Your task to perform on an android device: toggle sleep mode Image 0: 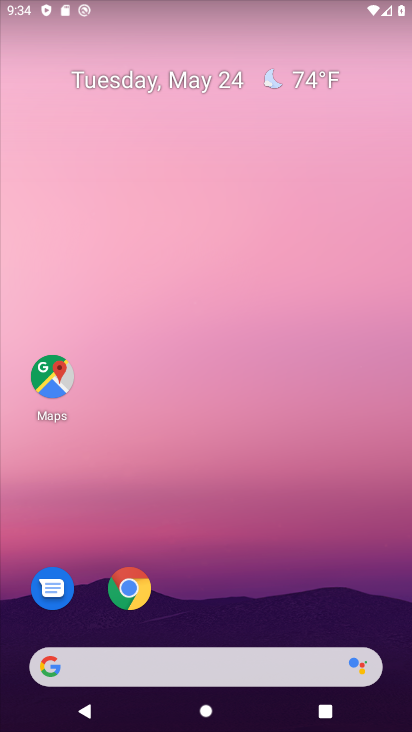
Step 0: drag from (246, 620) to (378, 102)
Your task to perform on an android device: toggle sleep mode Image 1: 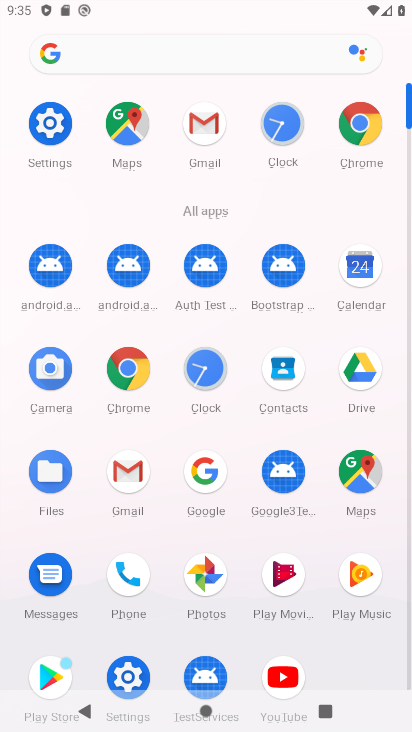
Step 1: click (63, 142)
Your task to perform on an android device: toggle sleep mode Image 2: 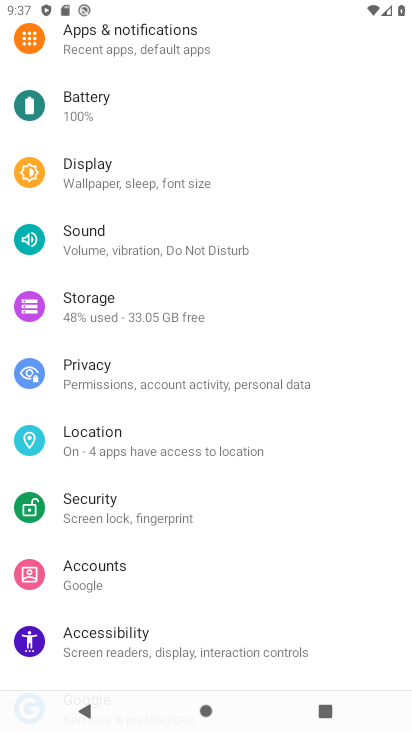
Step 2: task complete